Your task to perform on an android device: find photos in the google photos app Image 0: 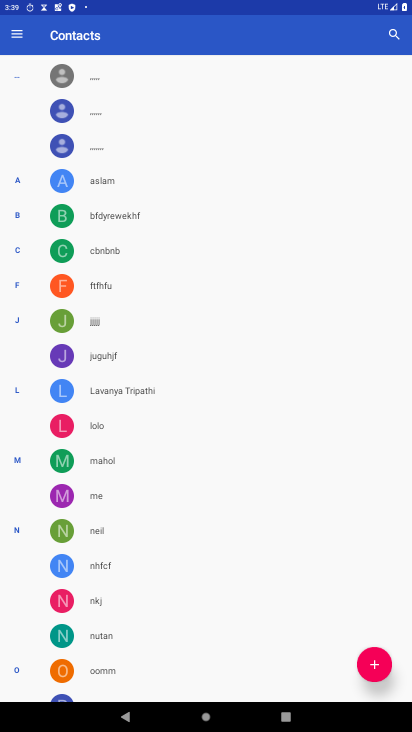
Step 0: press home button
Your task to perform on an android device: find photos in the google photos app Image 1: 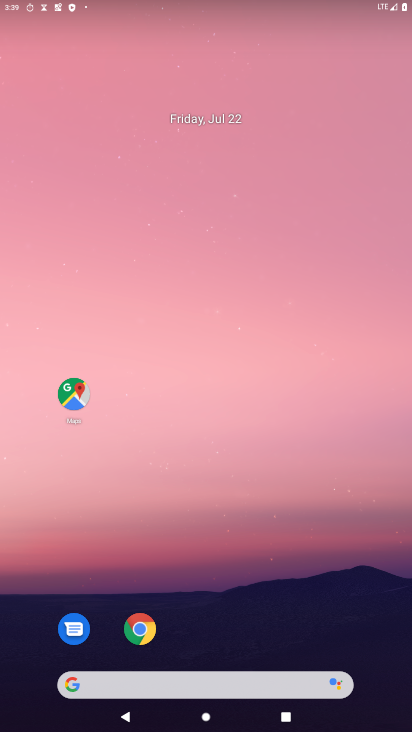
Step 1: drag from (190, 695) to (149, 6)
Your task to perform on an android device: find photos in the google photos app Image 2: 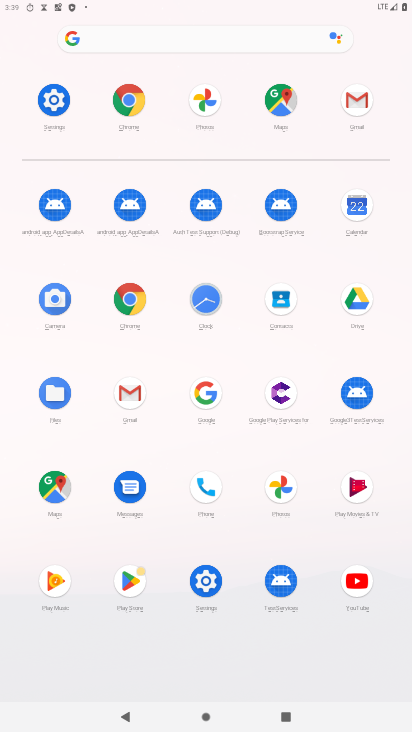
Step 2: click (276, 494)
Your task to perform on an android device: find photos in the google photos app Image 3: 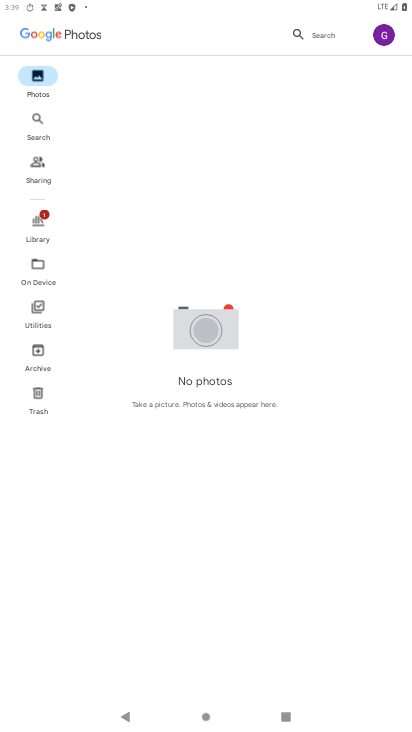
Step 3: task complete